Your task to perform on an android device: Go to notification settings Image 0: 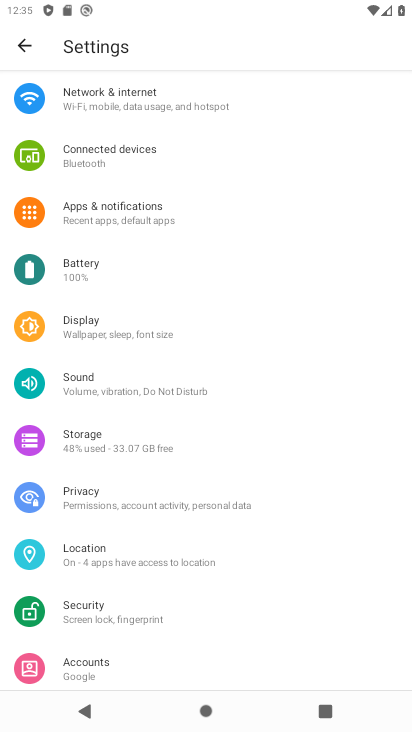
Step 0: click (92, 222)
Your task to perform on an android device: Go to notification settings Image 1: 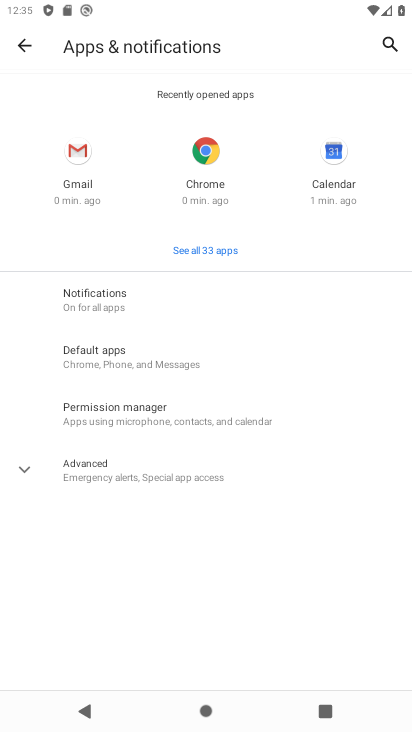
Step 1: click (101, 294)
Your task to perform on an android device: Go to notification settings Image 2: 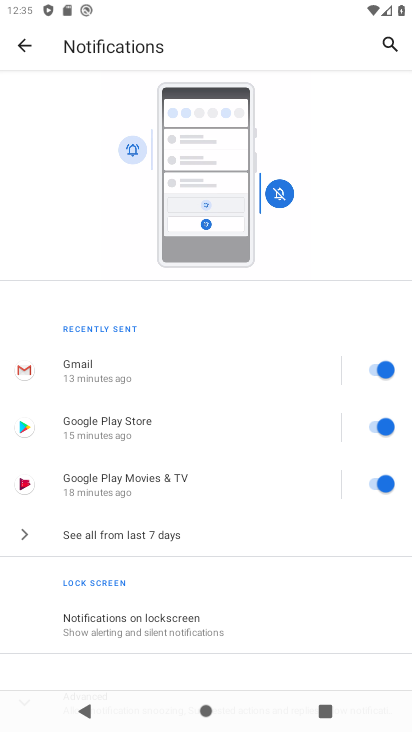
Step 2: task complete